Your task to perform on an android device: move an email to a new category in the gmail app Image 0: 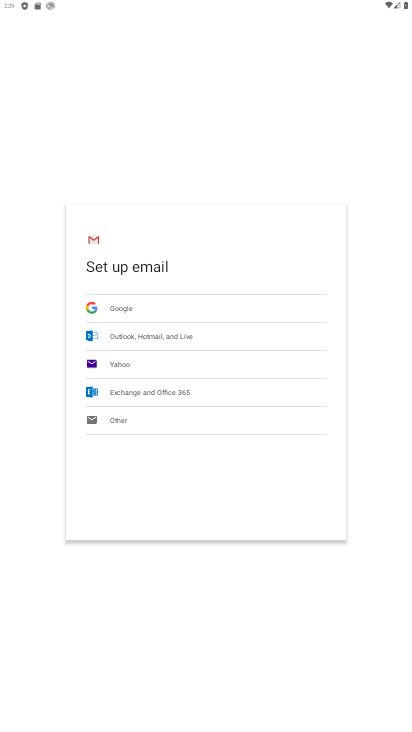
Step 0: press home button
Your task to perform on an android device: move an email to a new category in the gmail app Image 1: 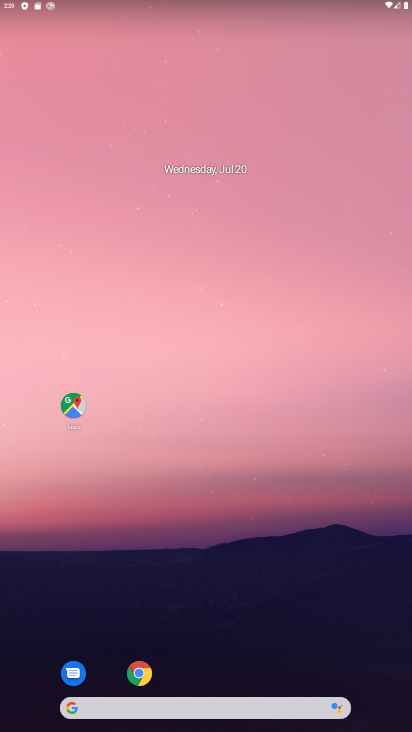
Step 1: drag from (222, 588) to (208, 204)
Your task to perform on an android device: move an email to a new category in the gmail app Image 2: 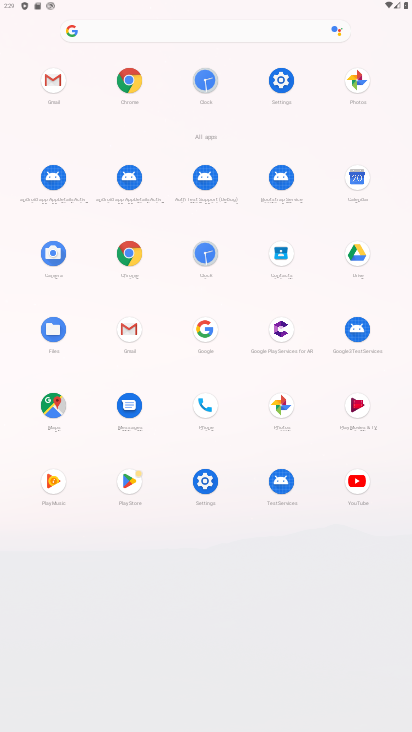
Step 2: click (133, 328)
Your task to perform on an android device: move an email to a new category in the gmail app Image 3: 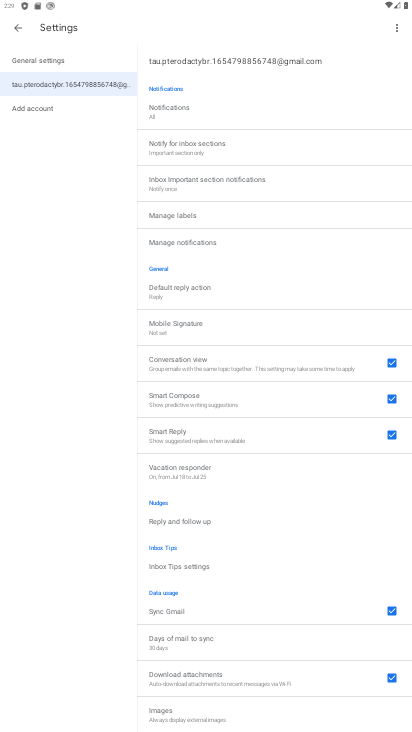
Step 3: click (18, 22)
Your task to perform on an android device: move an email to a new category in the gmail app Image 4: 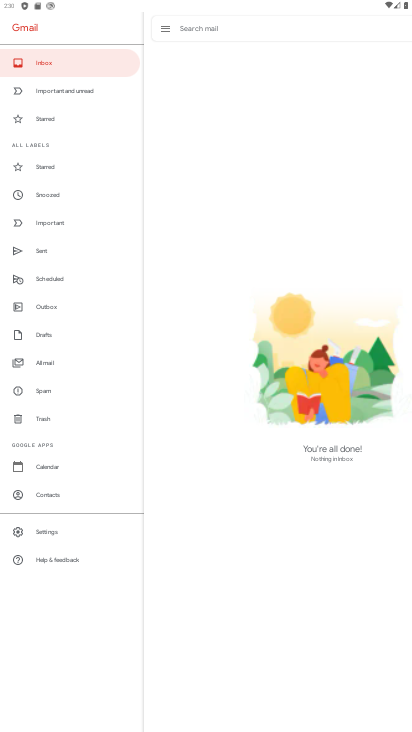
Step 4: click (47, 360)
Your task to perform on an android device: move an email to a new category in the gmail app Image 5: 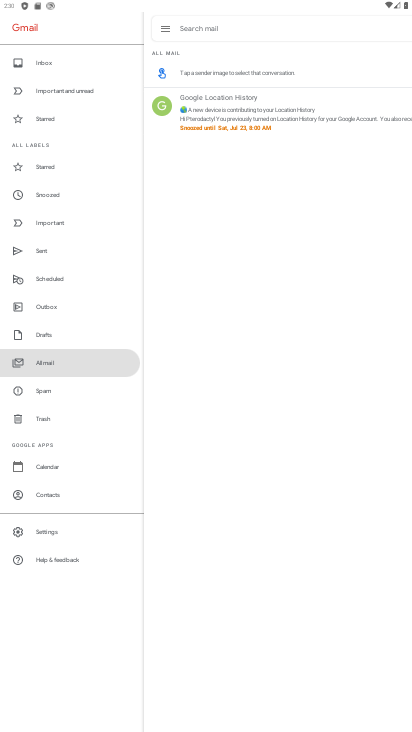
Step 5: drag from (288, 310) to (129, 307)
Your task to perform on an android device: move an email to a new category in the gmail app Image 6: 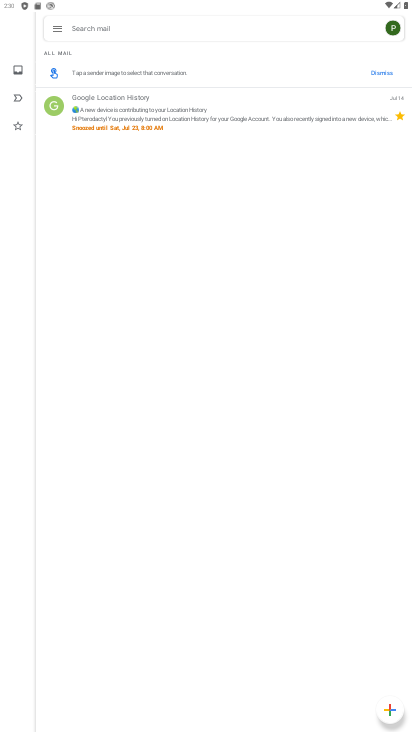
Step 6: click (210, 116)
Your task to perform on an android device: move an email to a new category in the gmail app Image 7: 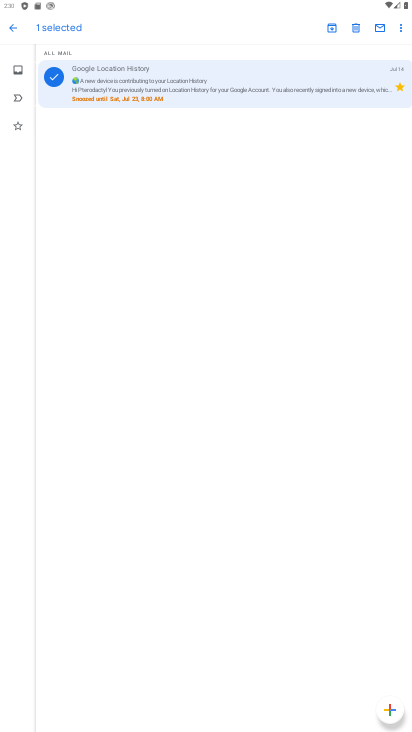
Step 7: click (399, 32)
Your task to perform on an android device: move an email to a new category in the gmail app Image 8: 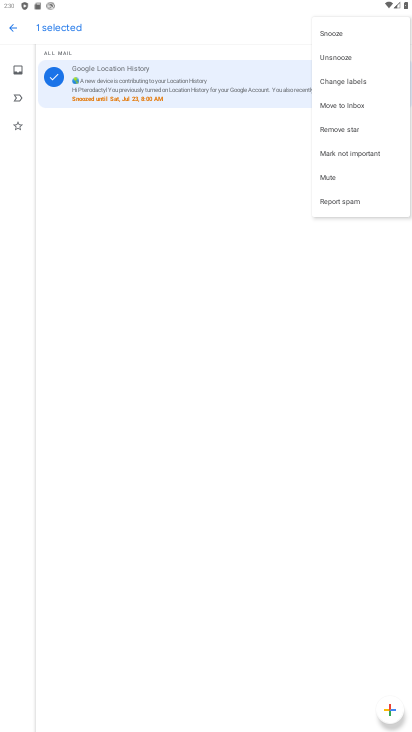
Step 8: click (353, 106)
Your task to perform on an android device: move an email to a new category in the gmail app Image 9: 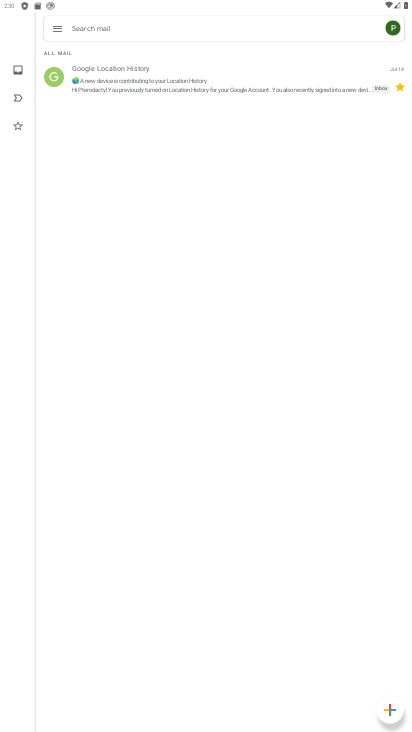
Step 9: task complete